Your task to perform on an android device: toggle sleep mode Image 0: 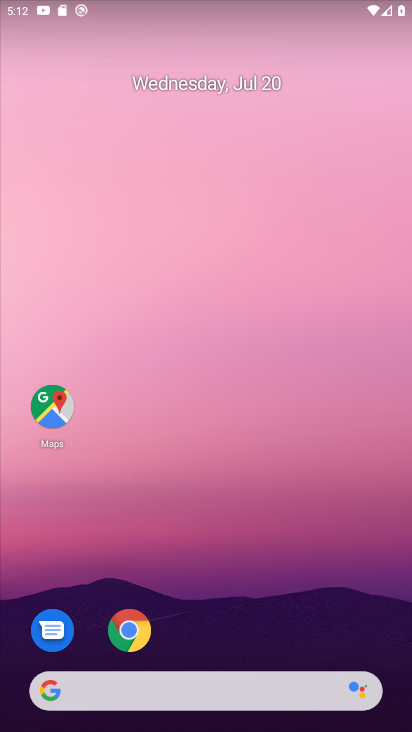
Step 0: press home button
Your task to perform on an android device: toggle sleep mode Image 1: 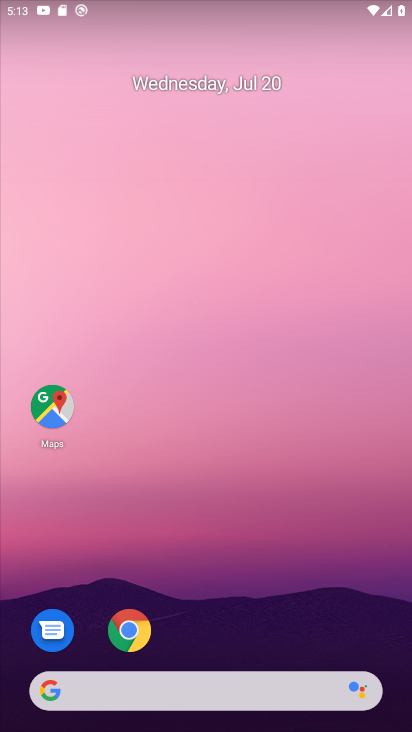
Step 1: drag from (261, 598) to (248, 92)
Your task to perform on an android device: toggle sleep mode Image 2: 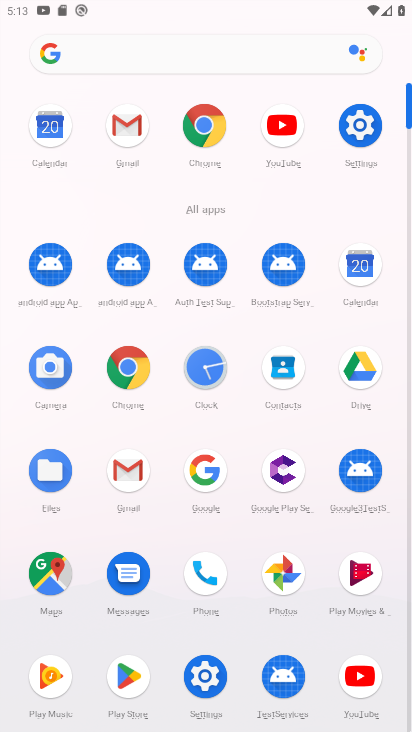
Step 2: click (362, 137)
Your task to perform on an android device: toggle sleep mode Image 3: 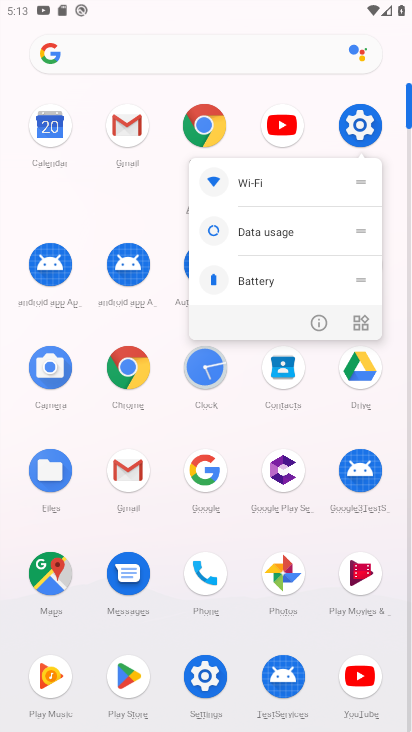
Step 3: click (363, 138)
Your task to perform on an android device: toggle sleep mode Image 4: 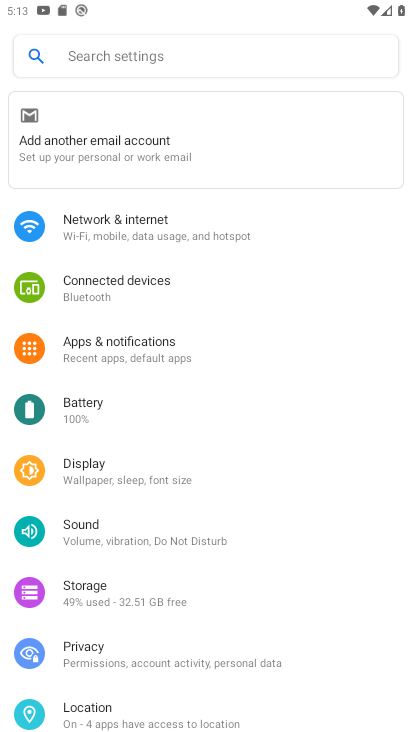
Step 4: click (72, 480)
Your task to perform on an android device: toggle sleep mode Image 5: 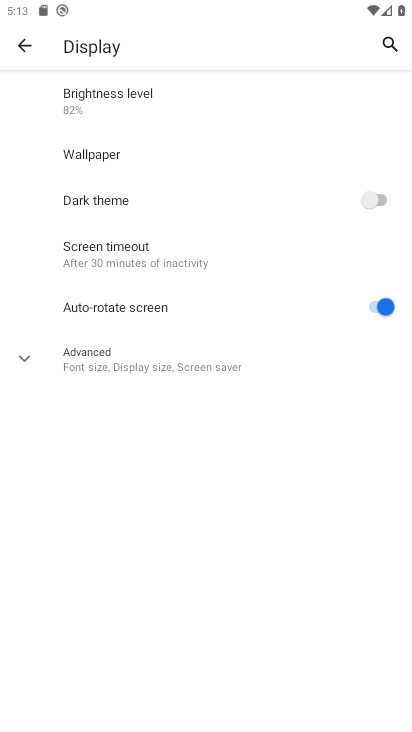
Step 5: task complete